Your task to perform on an android device: Search for pizza restaurants on Maps Image 0: 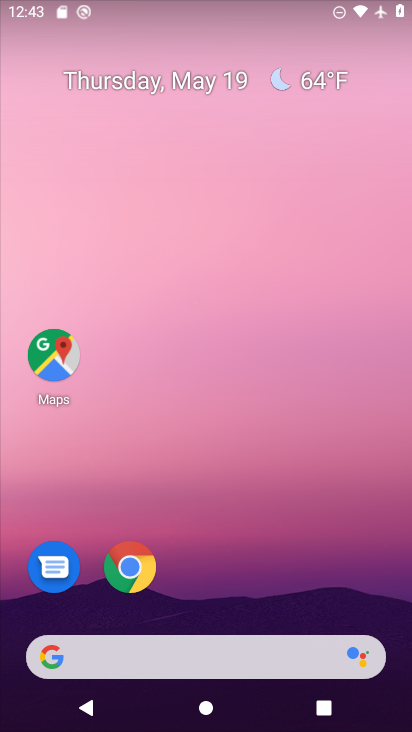
Step 0: click (60, 360)
Your task to perform on an android device: Search for pizza restaurants on Maps Image 1: 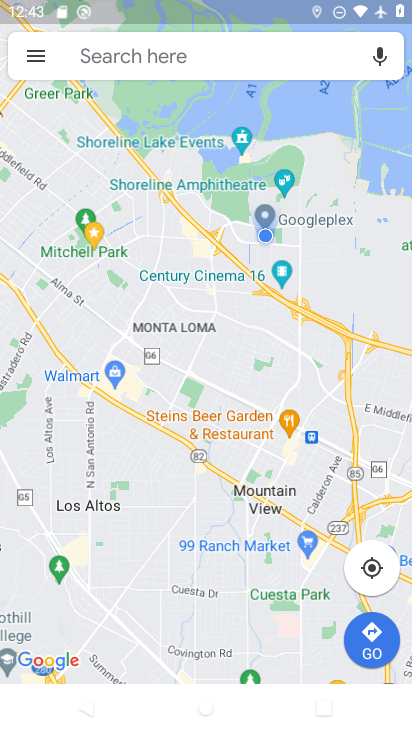
Step 1: click (160, 59)
Your task to perform on an android device: Search for pizza restaurants on Maps Image 2: 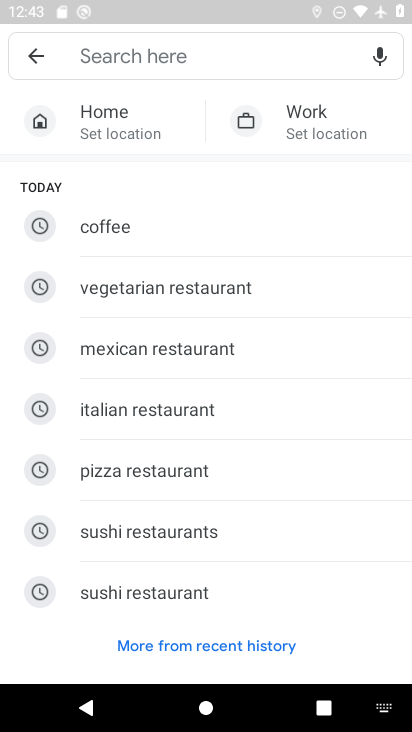
Step 2: click (156, 479)
Your task to perform on an android device: Search for pizza restaurants on Maps Image 3: 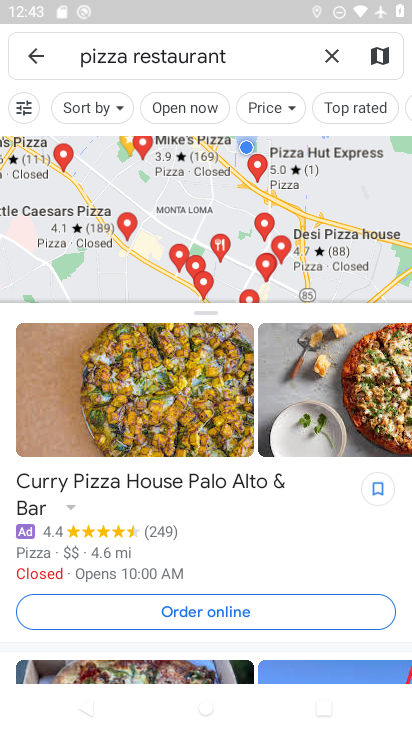
Step 3: task complete